Your task to perform on an android device: move a message to another label in the gmail app Image 0: 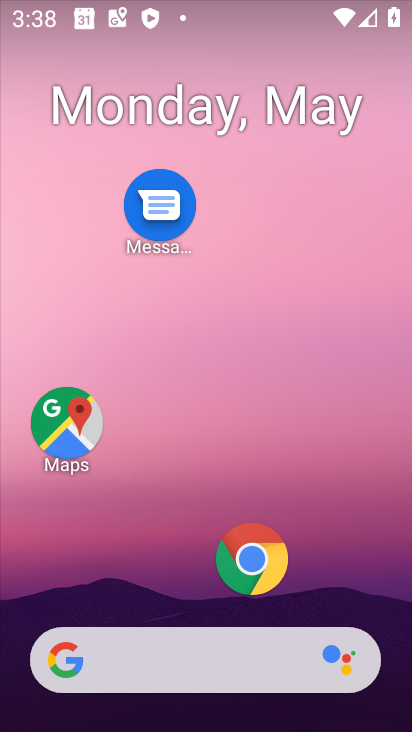
Step 0: drag from (154, 576) to (161, 167)
Your task to perform on an android device: move a message to another label in the gmail app Image 1: 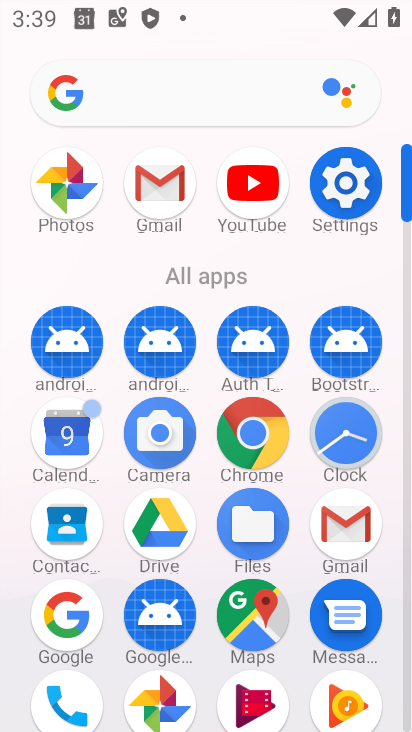
Step 1: click (156, 179)
Your task to perform on an android device: move a message to another label in the gmail app Image 2: 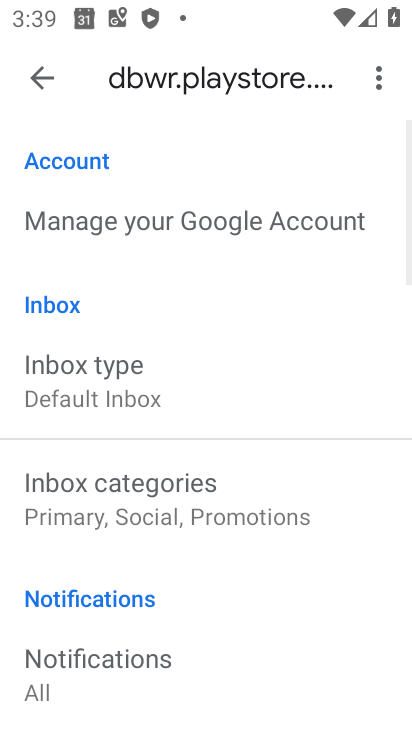
Step 2: click (42, 77)
Your task to perform on an android device: move a message to another label in the gmail app Image 3: 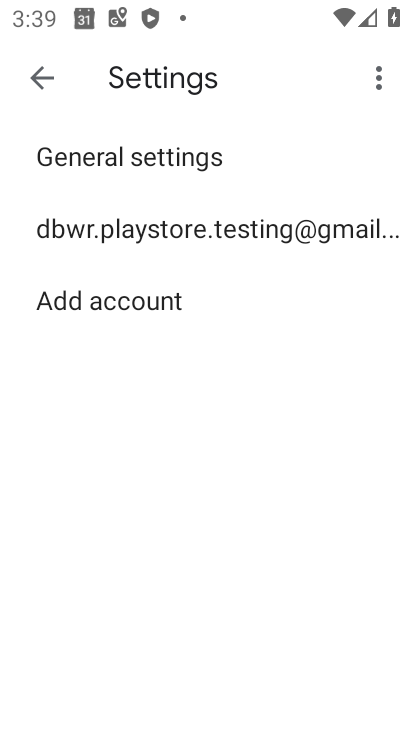
Step 3: click (38, 71)
Your task to perform on an android device: move a message to another label in the gmail app Image 4: 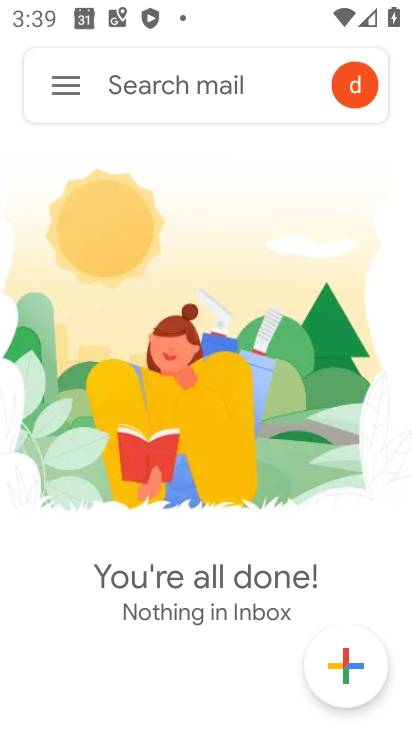
Step 4: click (51, 85)
Your task to perform on an android device: move a message to another label in the gmail app Image 5: 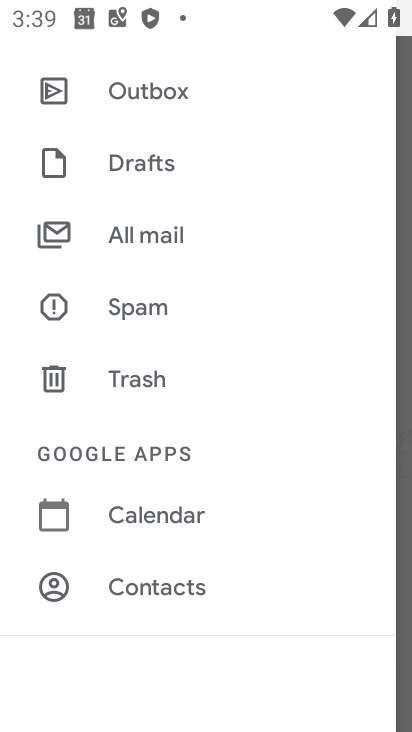
Step 5: click (123, 243)
Your task to perform on an android device: move a message to another label in the gmail app Image 6: 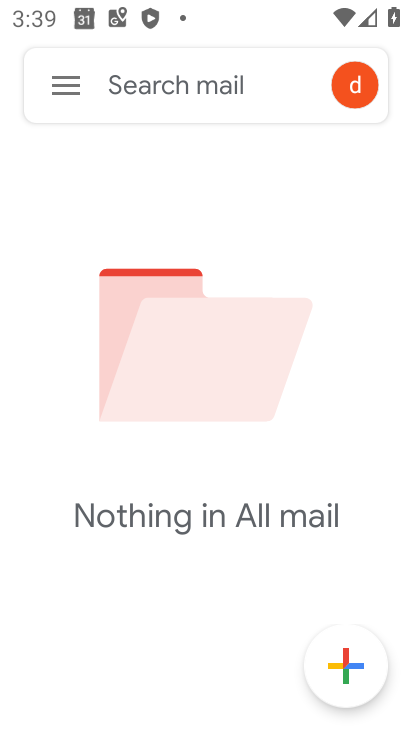
Step 6: task complete